Your task to perform on an android device: move a message to another label in the gmail app Image 0: 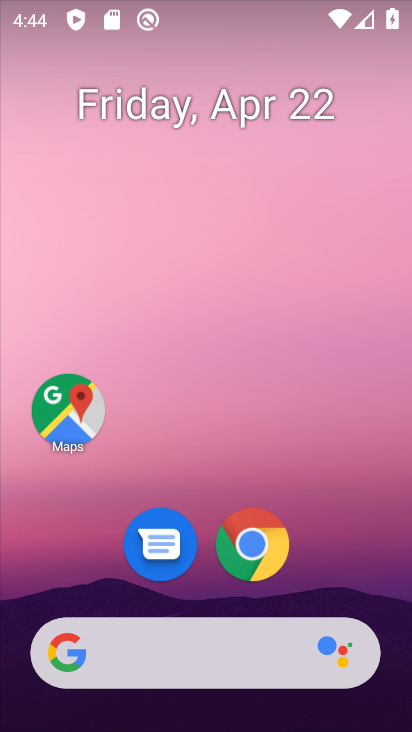
Step 0: drag from (163, 619) to (200, 130)
Your task to perform on an android device: move a message to another label in the gmail app Image 1: 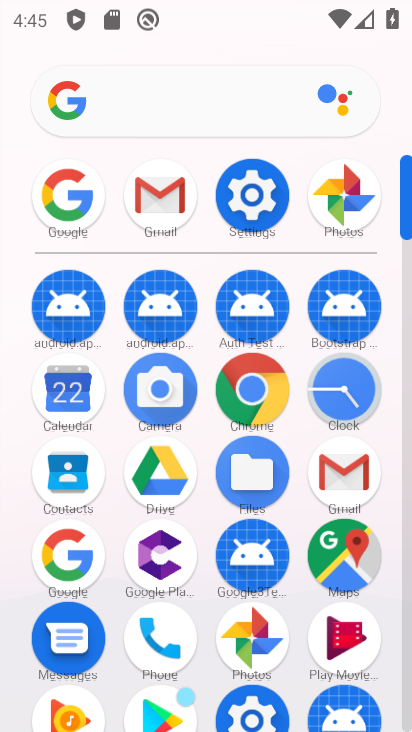
Step 1: click (160, 195)
Your task to perform on an android device: move a message to another label in the gmail app Image 2: 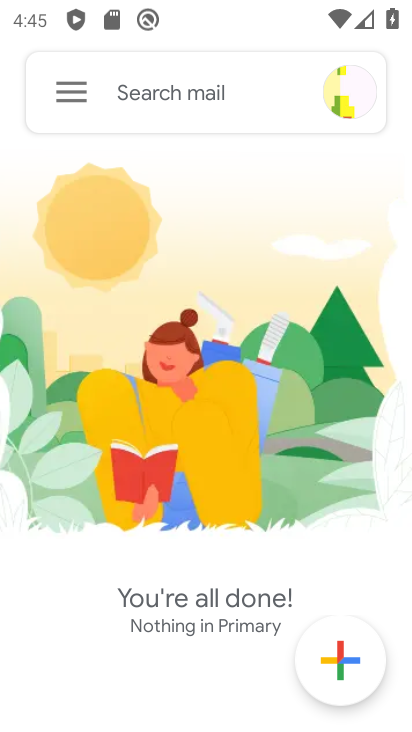
Step 2: click (57, 98)
Your task to perform on an android device: move a message to another label in the gmail app Image 3: 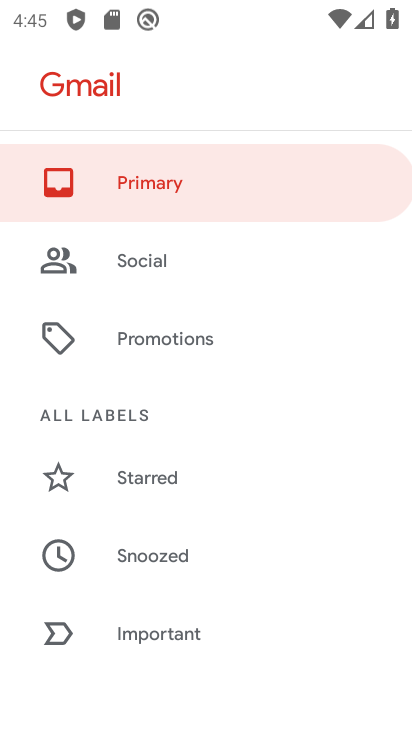
Step 3: drag from (166, 640) to (163, 334)
Your task to perform on an android device: move a message to another label in the gmail app Image 4: 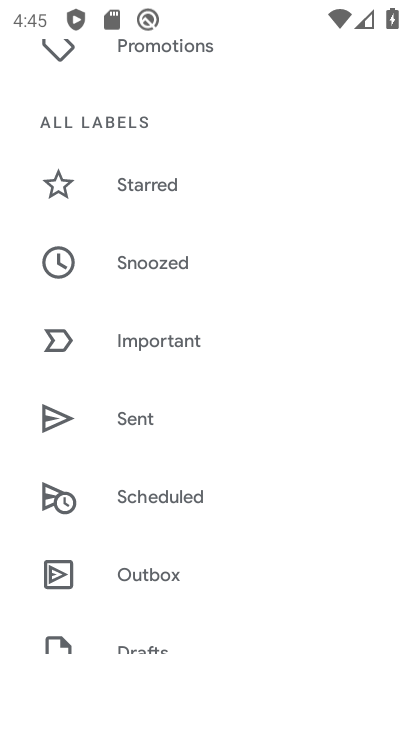
Step 4: drag from (177, 626) to (173, 267)
Your task to perform on an android device: move a message to another label in the gmail app Image 5: 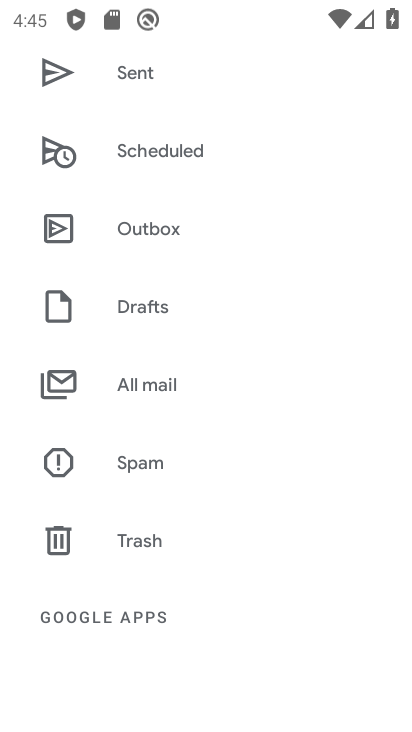
Step 5: click (141, 384)
Your task to perform on an android device: move a message to another label in the gmail app Image 6: 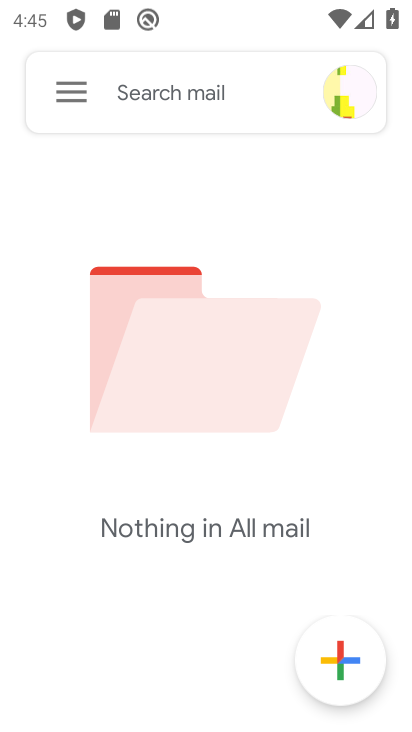
Step 6: task complete